Your task to perform on an android device: Open Amazon Image 0: 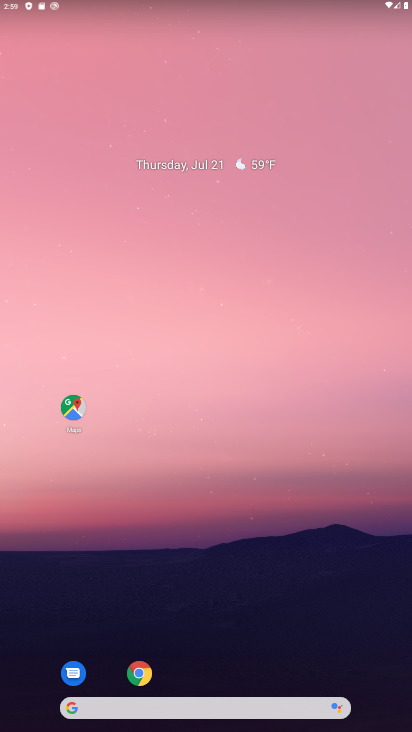
Step 0: drag from (345, 649) to (198, 43)
Your task to perform on an android device: Open Amazon Image 1: 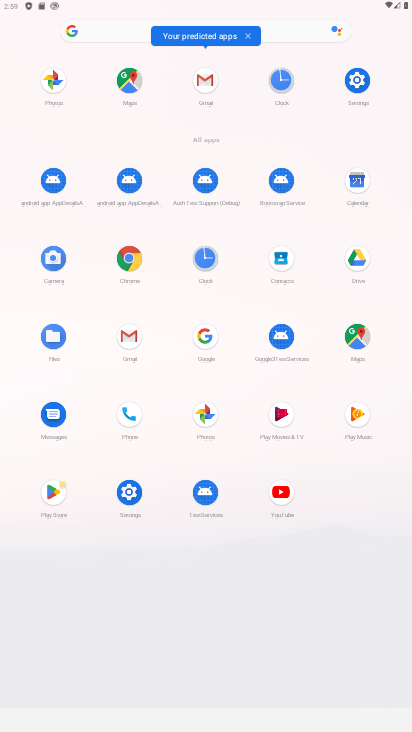
Step 1: click (131, 265)
Your task to perform on an android device: Open Amazon Image 2: 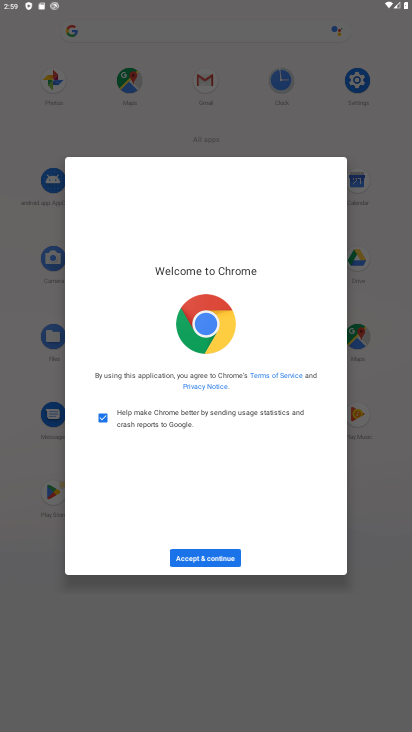
Step 2: click (189, 560)
Your task to perform on an android device: Open Amazon Image 3: 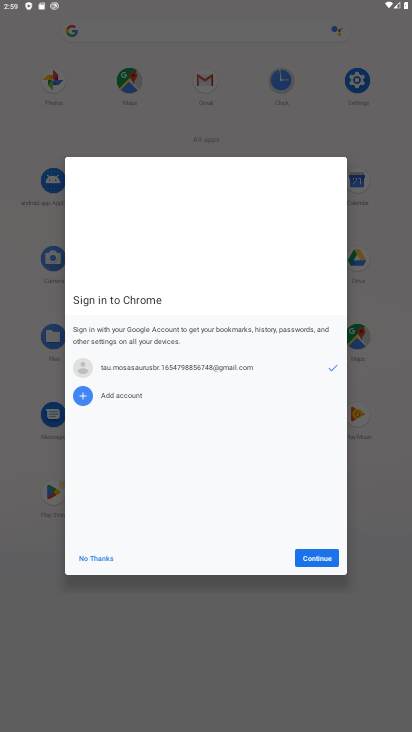
Step 3: click (320, 562)
Your task to perform on an android device: Open Amazon Image 4: 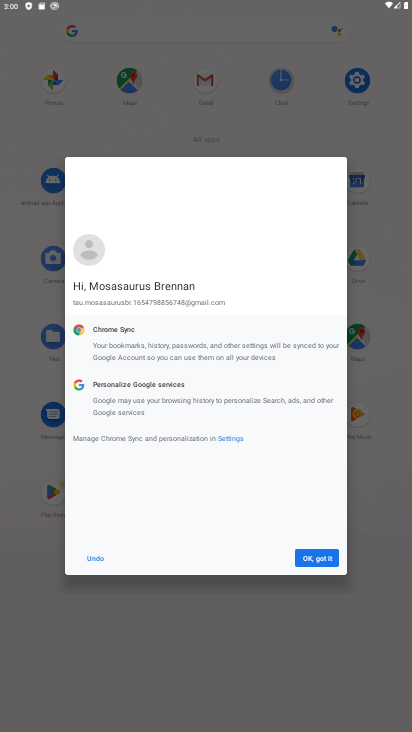
Step 4: click (320, 562)
Your task to perform on an android device: Open Amazon Image 5: 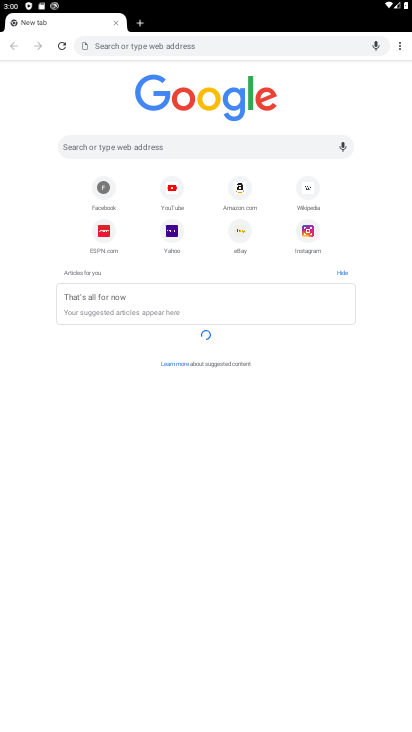
Step 5: click (254, 178)
Your task to perform on an android device: Open Amazon Image 6: 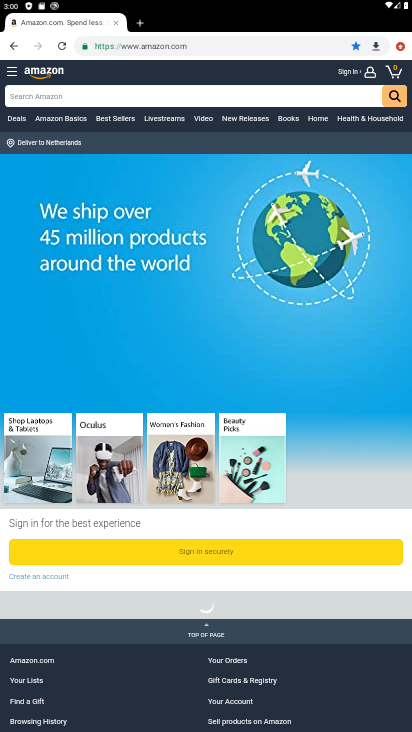
Step 6: task complete